Your task to perform on an android device: What's the news in Pakistan? Image 0: 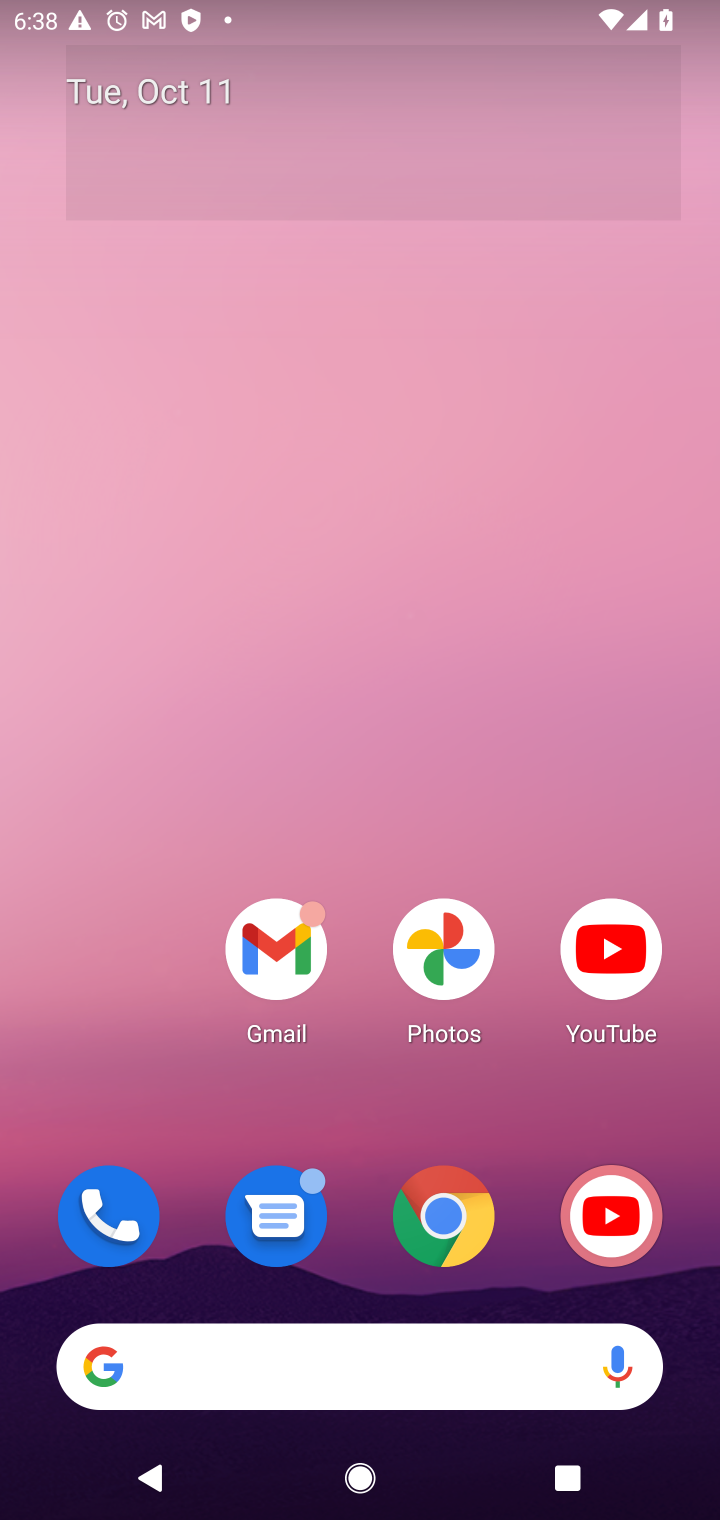
Step 0: click (459, 1274)
Your task to perform on an android device: What's the news in Pakistan? Image 1: 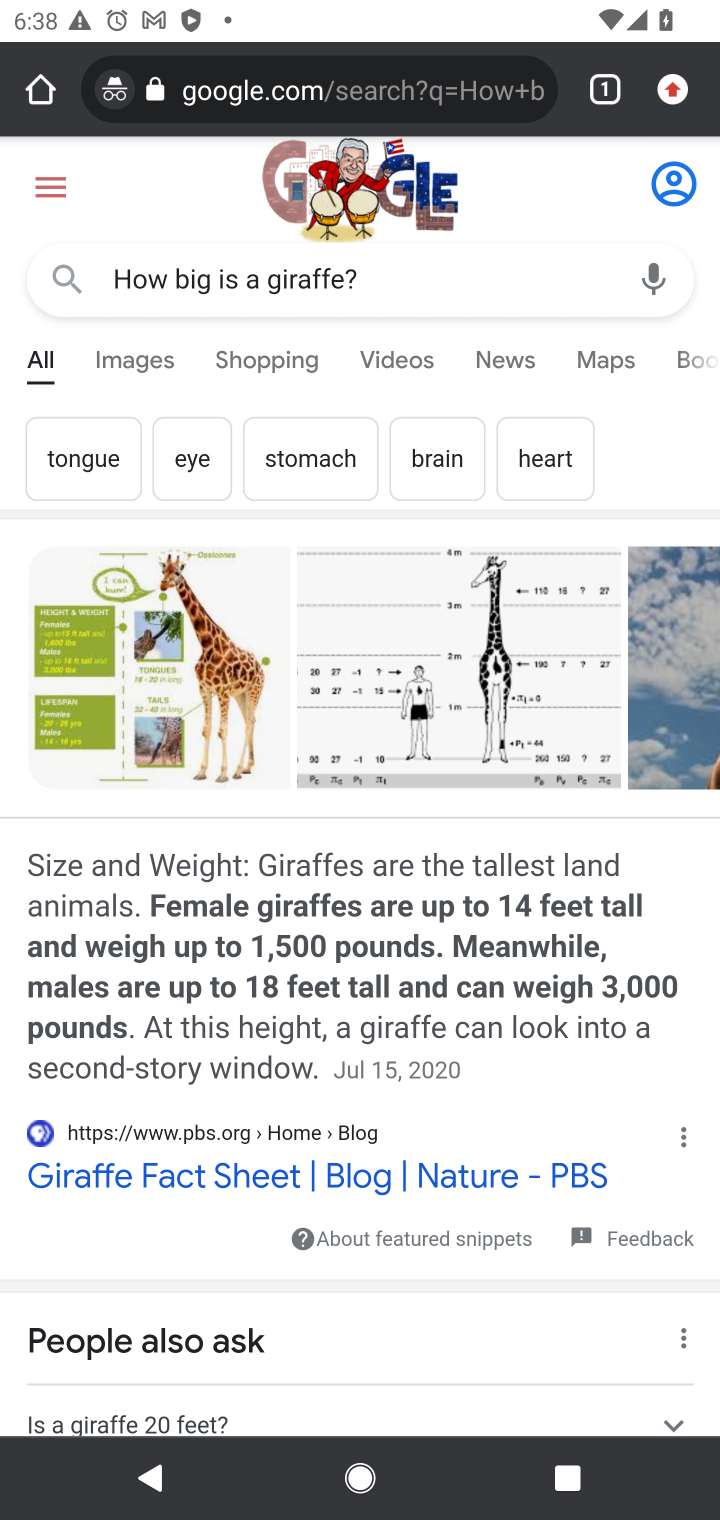
Step 1: click (388, 271)
Your task to perform on an android device: What's the news in Pakistan? Image 2: 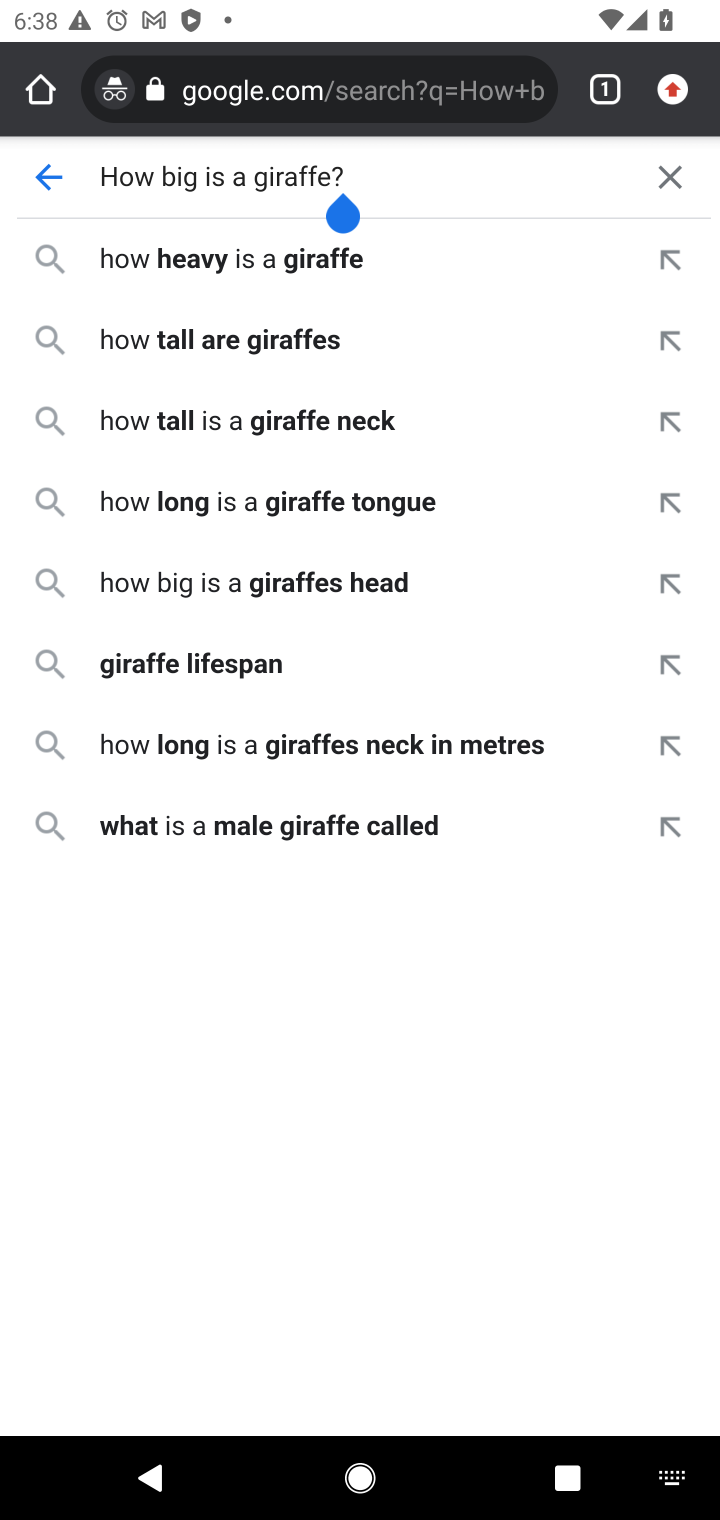
Step 2: click (666, 174)
Your task to perform on an android device: What's the news in Pakistan? Image 3: 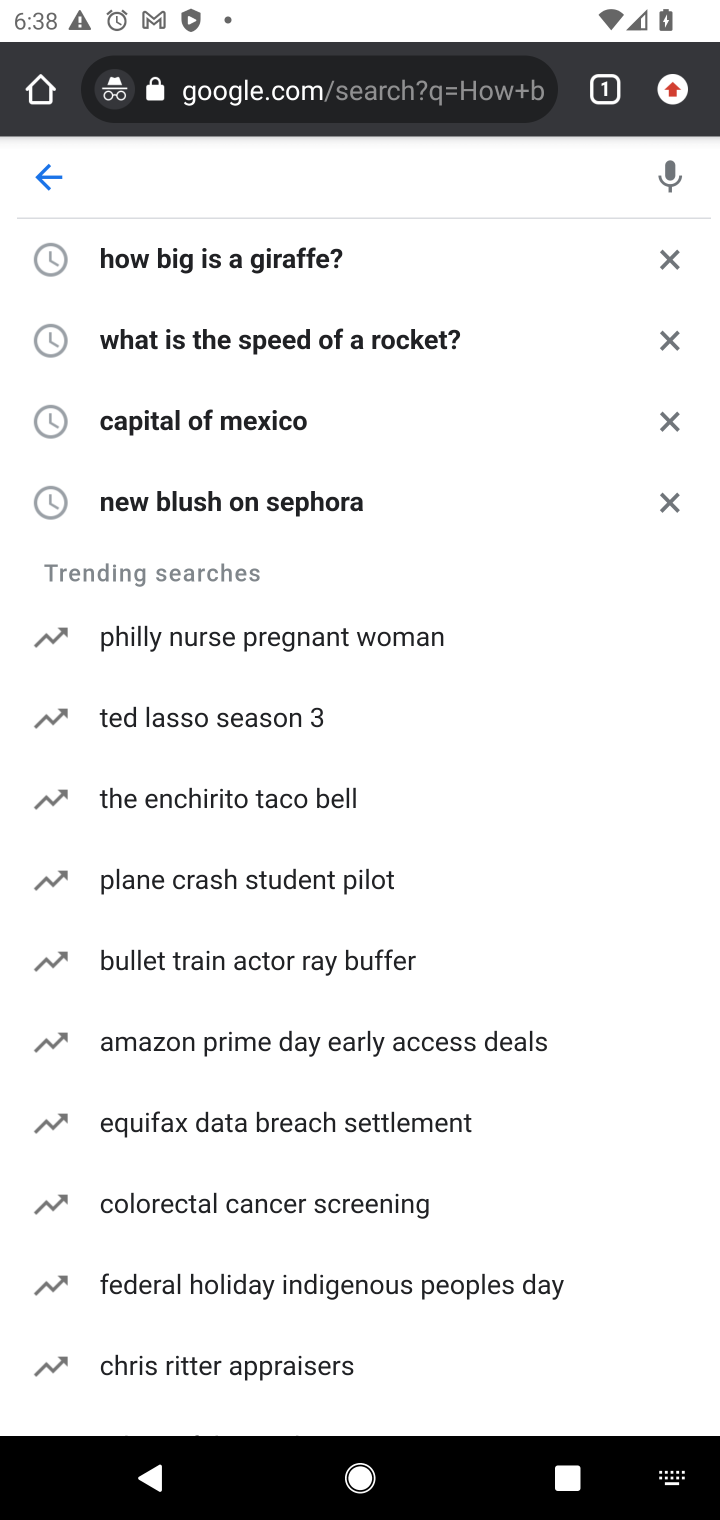
Step 3: type "What's the news in Pakistan?"
Your task to perform on an android device: What's the news in Pakistan? Image 4: 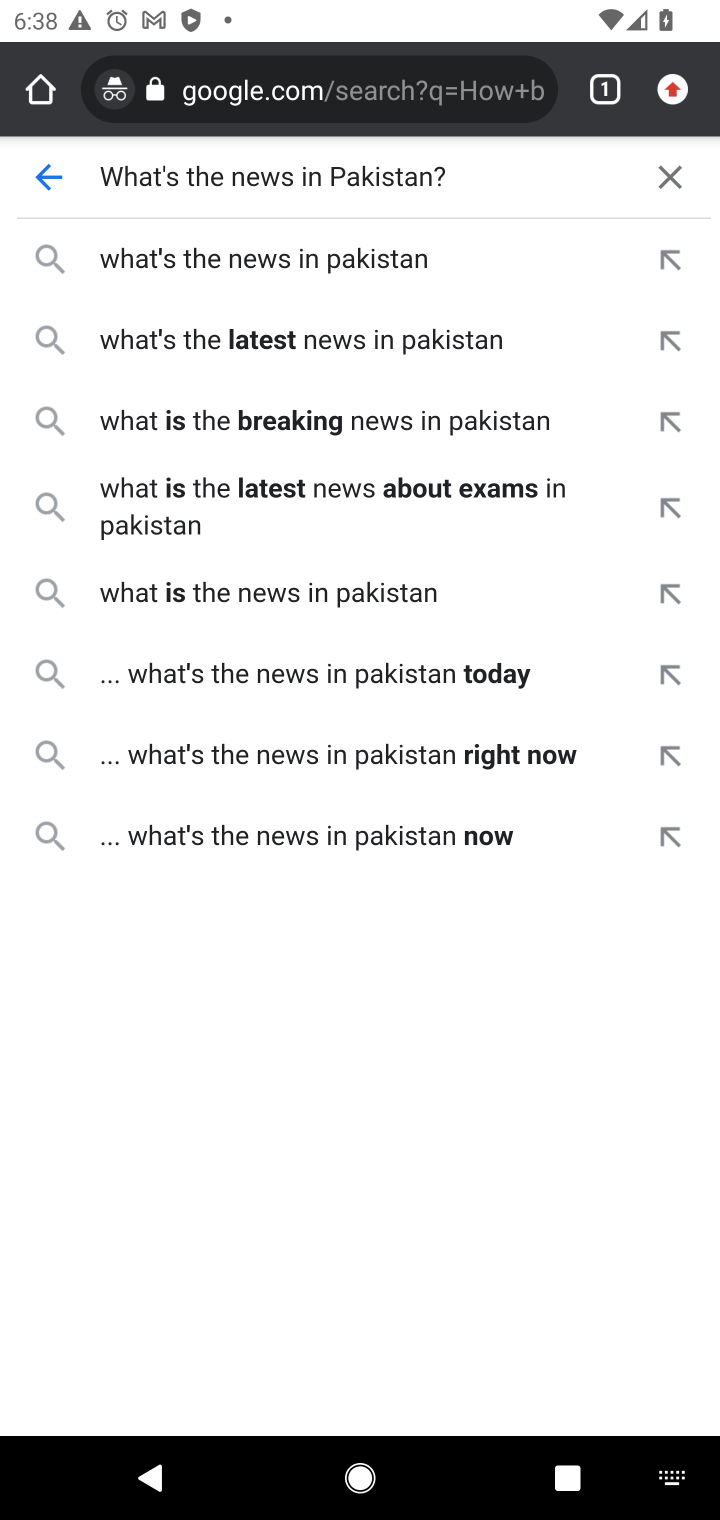
Step 4: press enter
Your task to perform on an android device: What's the news in Pakistan? Image 5: 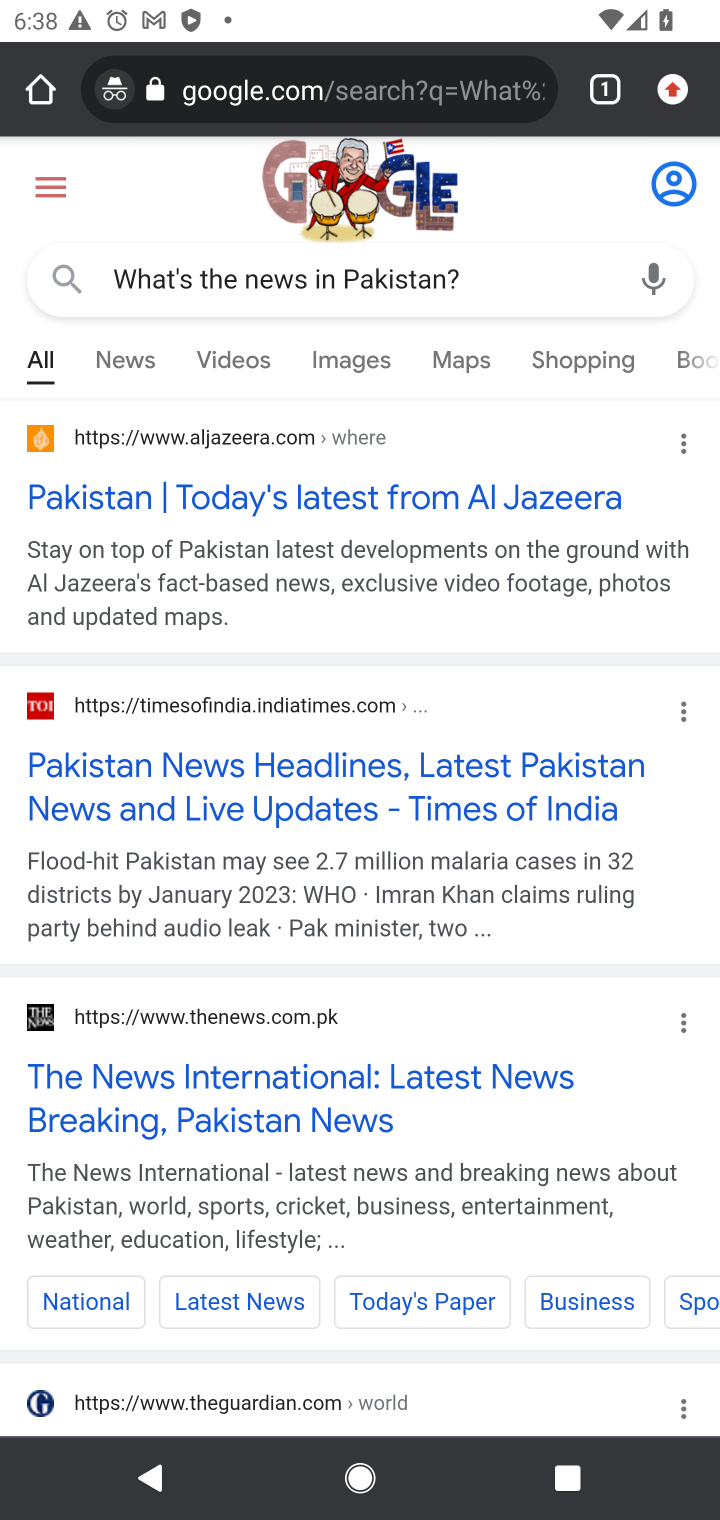
Step 5: click (130, 368)
Your task to perform on an android device: What's the news in Pakistan? Image 6: 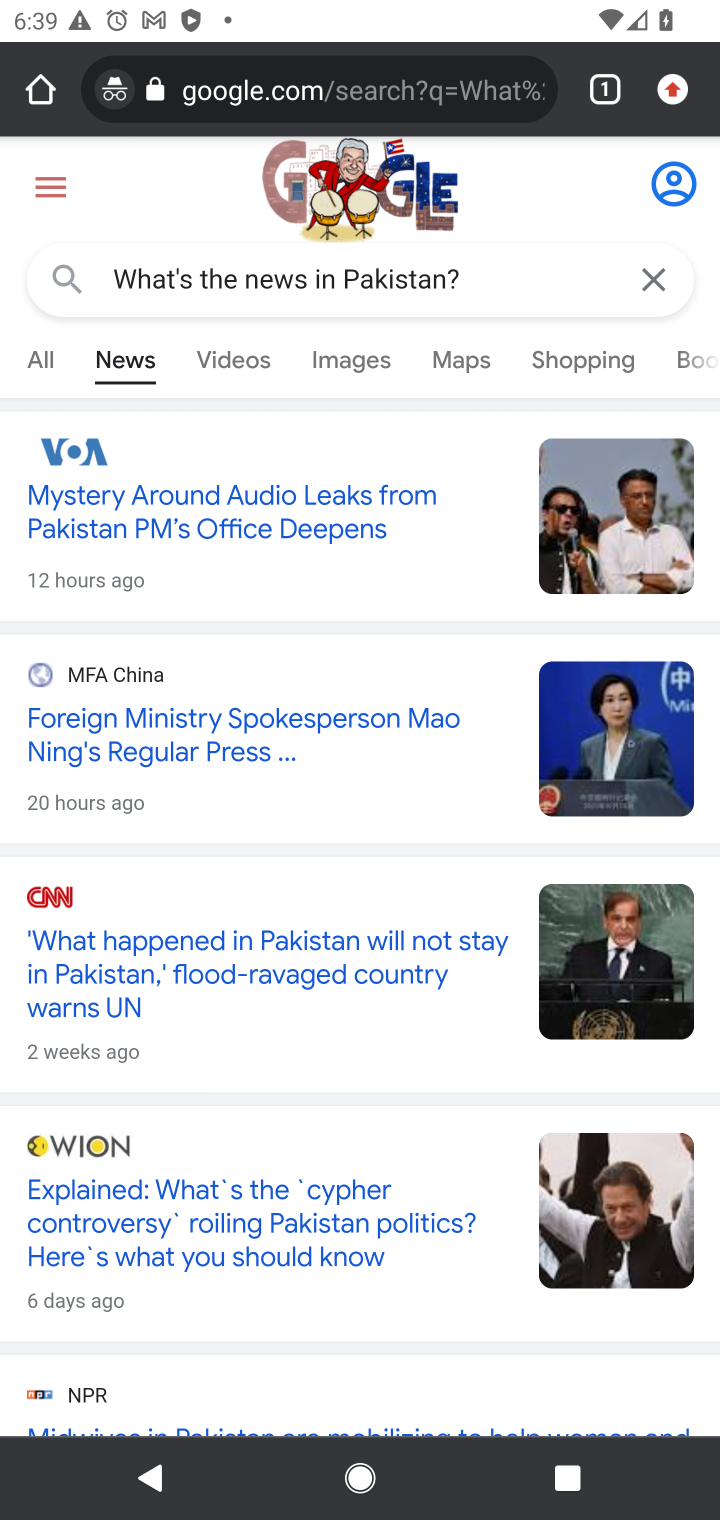
Step 6: task complete